Your task to perform on an android device: What's the weather today? Image 0: 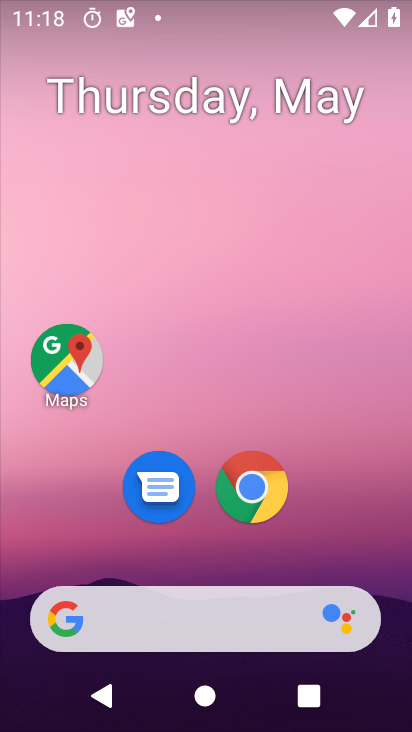
Step 0: drag from (316, 545) to (293, 106)
Your task to perform on an android device: What's the weather today? Image 1: 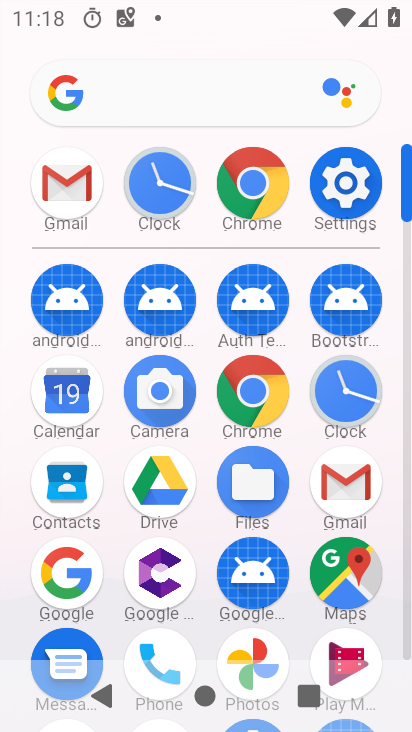
Step 1: click (70, 580)
Your task to perform on an android device: What's the weather today? Image 2: 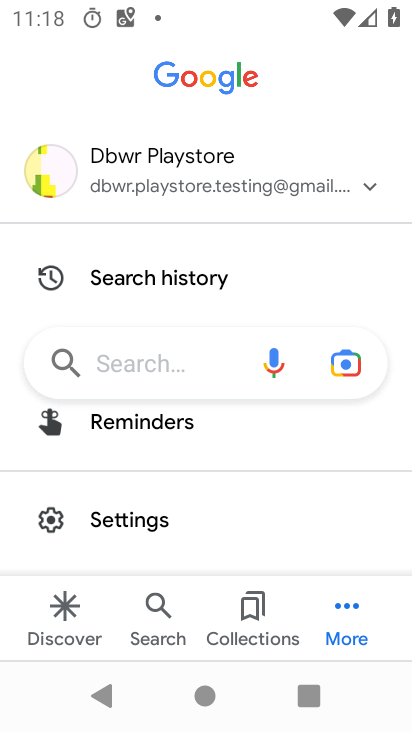
Step 2: press home button
Your task to perform on an android device: What's the weather today? Image 3: 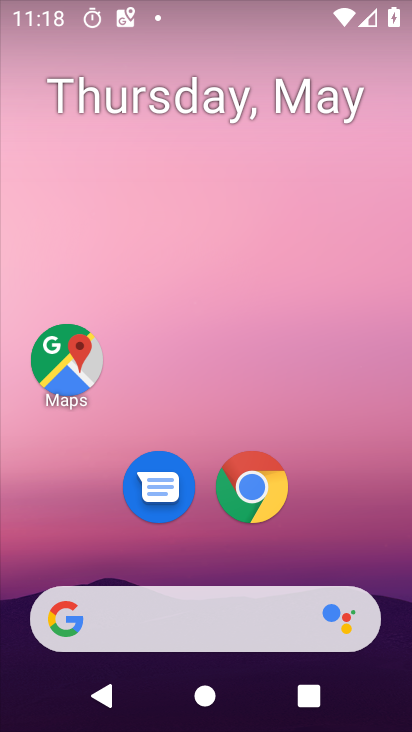
Step 3: click (205, 632)
Your task to perform on an android device: What's the weather today? Image 4: 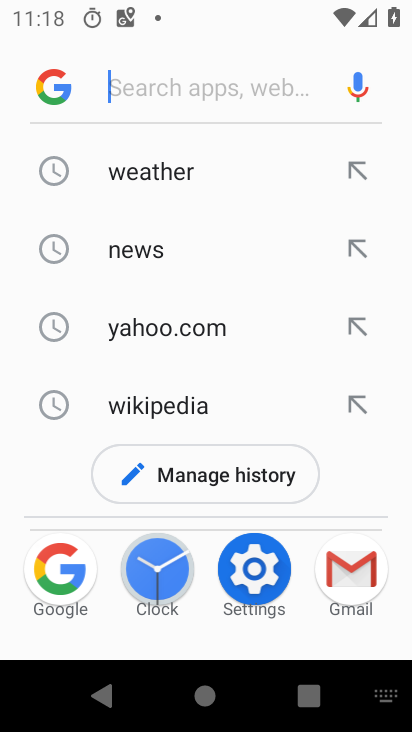
Step 4: click (176, 170)
Your task to perform on an android device: What's the weather today? Image 5: 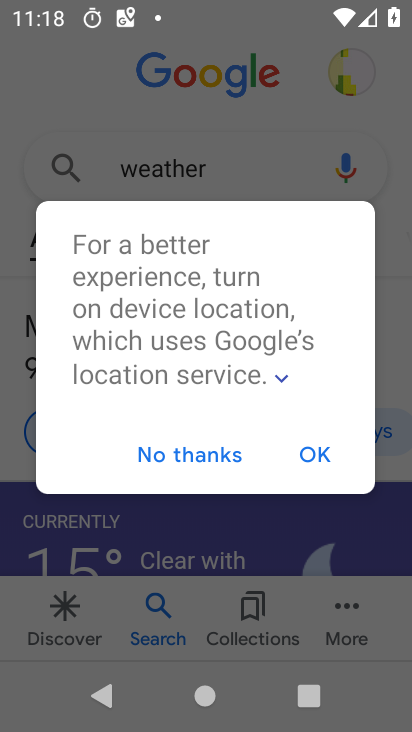
Step 5: drag from (262, 530) to (255, 305)
Your task to perform on an android device: What's the weather today? Image 6: 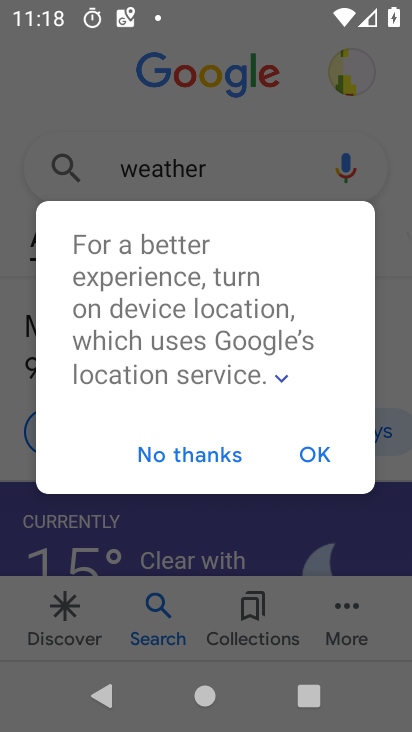
Step 6: click (315, 459)
Your task to perform on an android device: What's the weather today? Image 7: 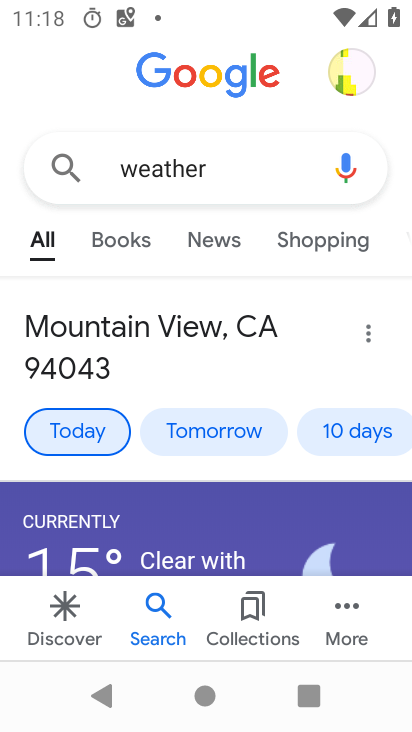
Step 7: task complete